Your task to perform on an android device: change the clock display to analog Image 0: 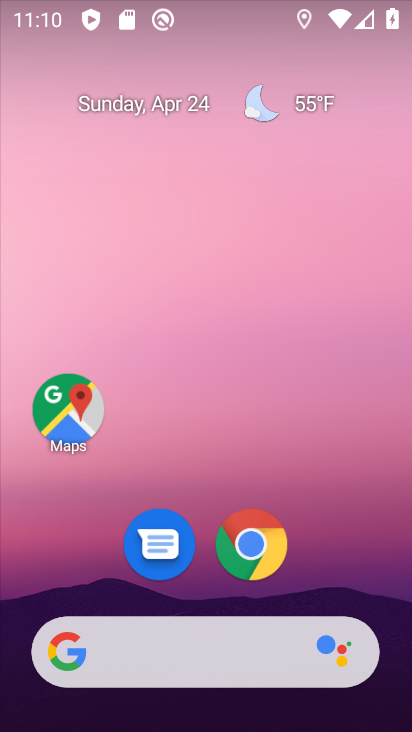
Step 0: drag from (357, 489) to (183, 105)
Your task to perform on an android device: change the clock display to analog Image 1: 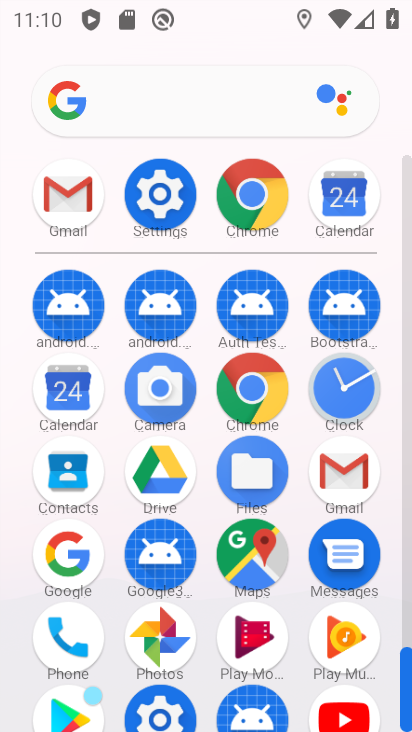
Step 1: click (344, 387)
Your task to perform on an android device: change the clock display to analog Image 2: 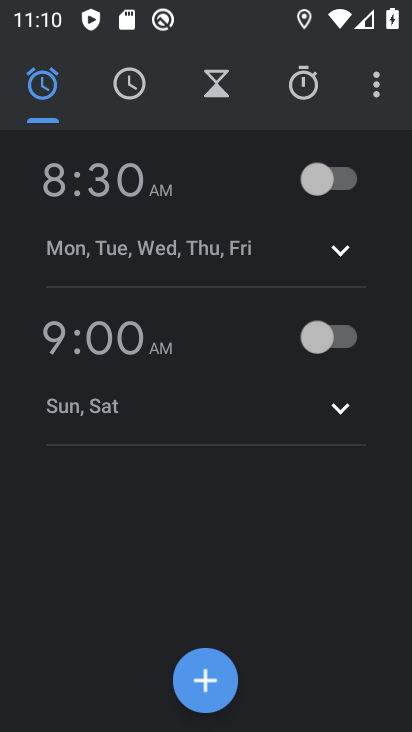
Step 2: click (375, 82)
Your task to perform on an android device: change the clock display to analog Image 3: 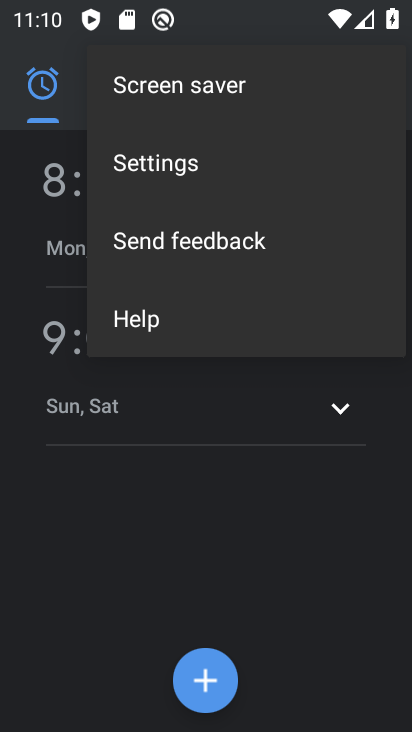
Step 3: click (170, 172)
Your task to perform on an android device: change the clock display to analog Image 4: 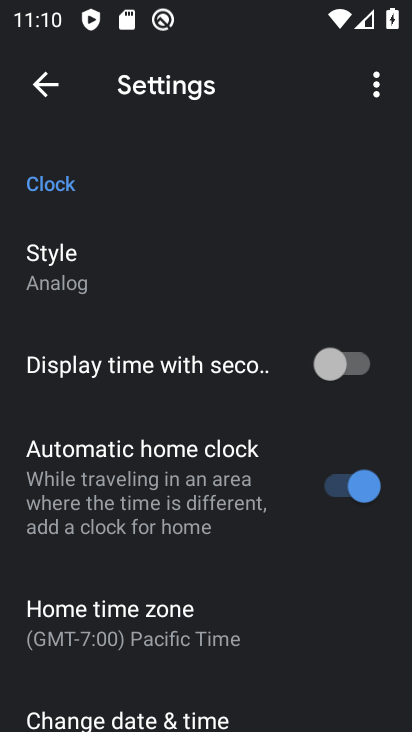
Step 4: task complete